Your task to perform on an android device: open the mobile data screen to see how much data has been used Image 0: 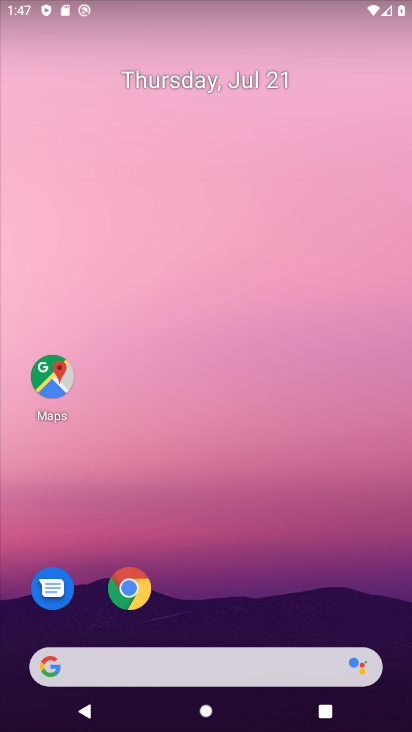
Step 0: drag from (237, 640) to (297, 215)
Your task to perform on an android device: open the mobile data screen to see how much data has been used Image 1: 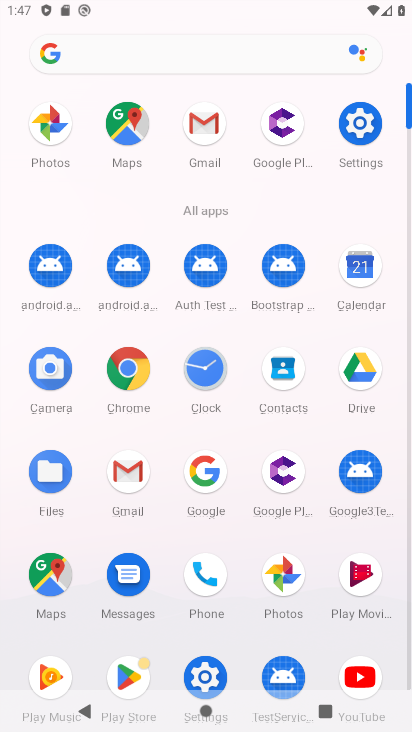
Step 1: click (367, 131)
Your task to perform on an android device: open the mobile data screen to see how much data has been used Image 2: 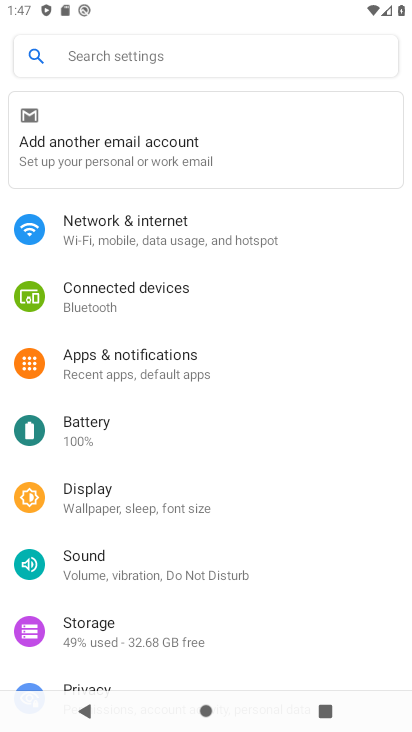
Step 2: drag from (255, 565) to (297, 300)
Your task to perform on an android device: open the mobile data screen to see how much data has been used Image 3: 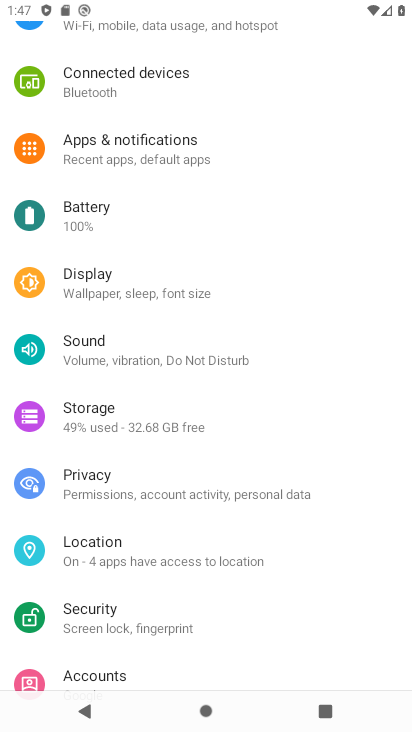
Step 3: drag from (172, 571) to (270, 268)
Your task to perform on an android device: open the mobile data screen to see how much data has been used Image 4: 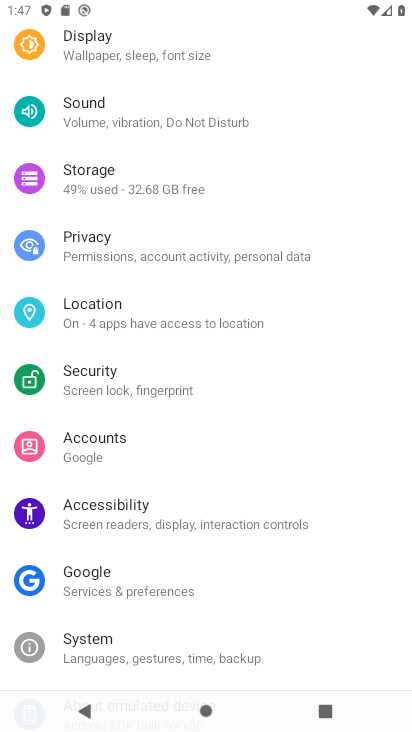
Step 4: drag from (196, 357) to (245, 729)
Your task to perform on an android device: open the mobile data screen to see how much data has been used Image 5: 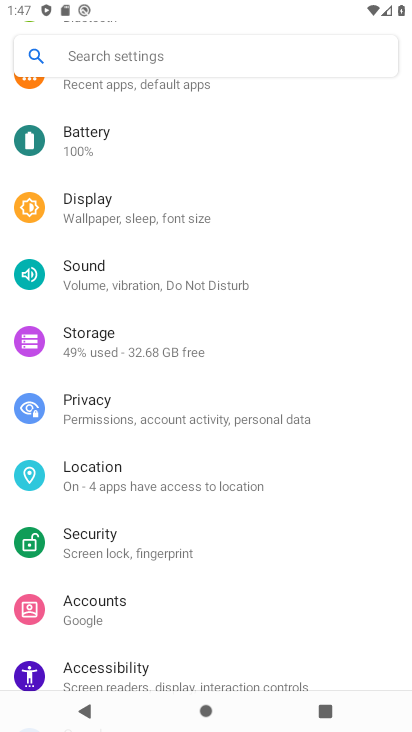
Step 5: drag from (128, 200) to (251, 655)
Your task to perform on an android device: open the mobile data screen to see how much data has been used Image 6: 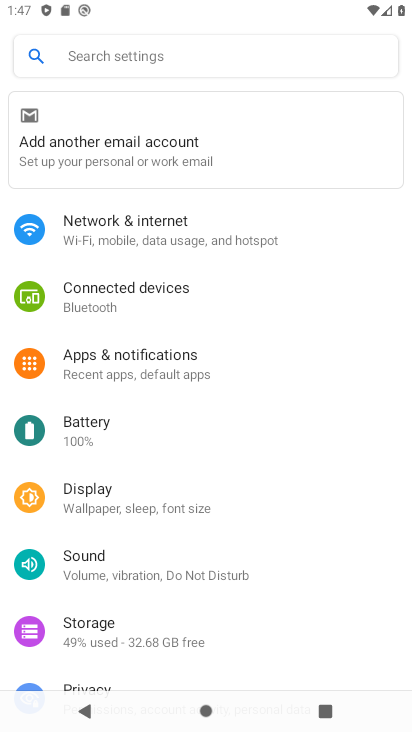
Step 6: click (114, 238)
Your task to perform on an android device: open the mobile data screen to see how much data has been used Image 7: 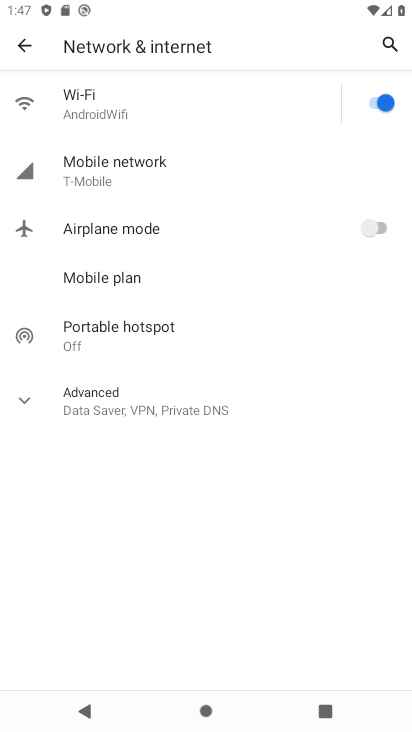
Step 7: drag from (258, 566) to (344, 184)
Your task to perform on an android device: open the mobile data screen to see how much data has been used Image 8: 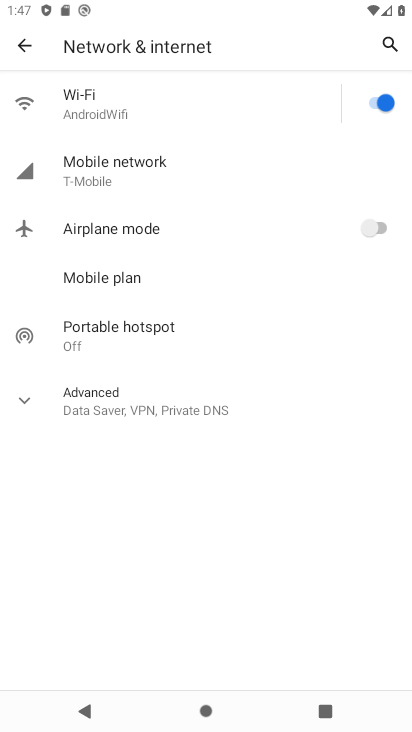
Step 8: click (170, 172)
Your task to perform on an android device: open the mobile data screen to see how much data has been used Image 9: 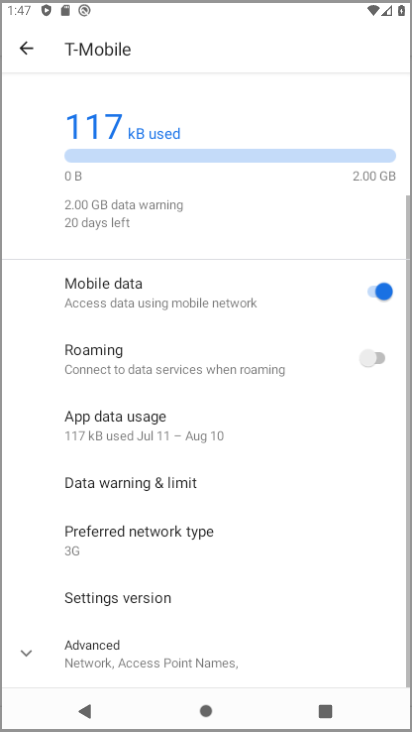
Step 9: task complete